Your task to perform on an android device: Search for top rated pizza restaurants on Maps Image 0: 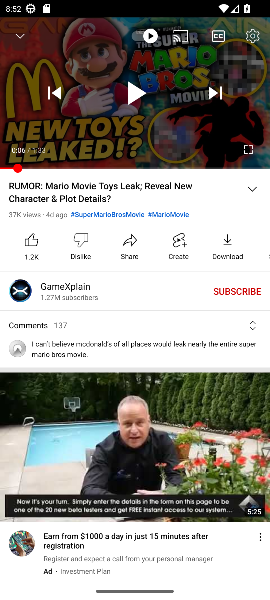
Step 0: press home button
Your task to perform on an android device: Search for top rated pizza restaurants on Maps Image 1: 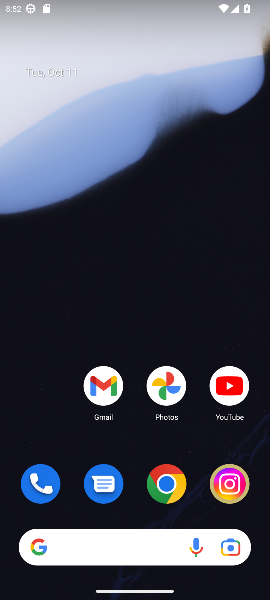
Step 1: click (167, 486)
Your task to perform on an android device: Search for top rated pizza restaurants on Maps Image 2: 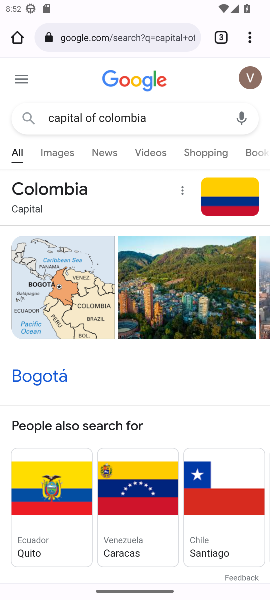
Step 2: click (177, 42)
Your task to perform on an android device: Search for top rated pizza restaurants on Maps Image 3: 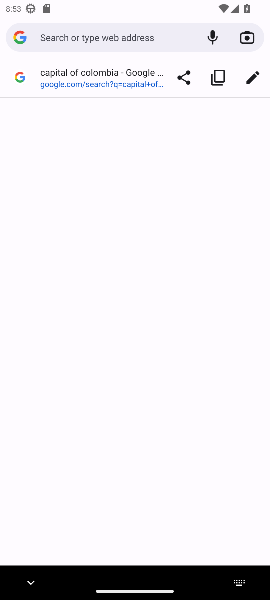
Step 3: type "pizza restaurants"
Your task to perform on an android device: Search for top rated pizza restaurants on Maps Image 4: 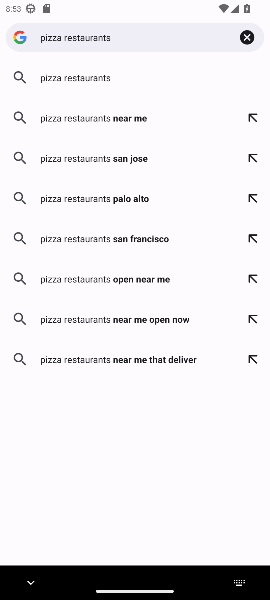
Step 4: click (79, 79)
Your task to perform on an android device: Search for top rated pizza restaurants on Maps Image 5: 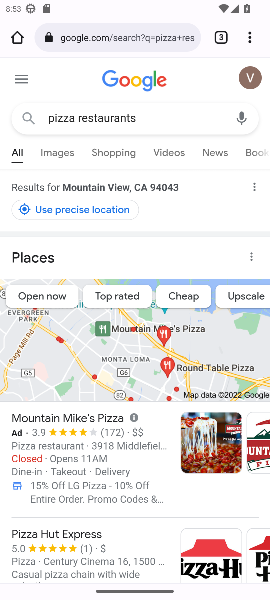
Step 5: click (105, 295)
Your task to perform on an android device: Search for top rated pizza restaurants on Maps Image 6: 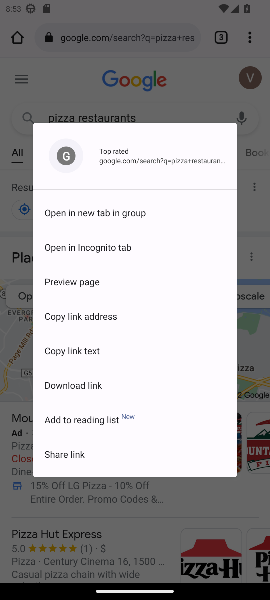
Step 6: click (196, 87)
Your task to perform on an android device: Search for top rated pizza restaurants on Maps Image 7: 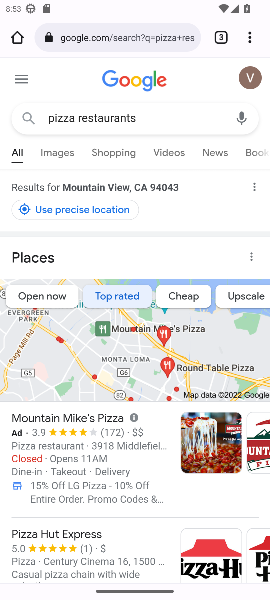
Step 7: task complete